Your task to perform on an android device: Go to battery settings Image 0: 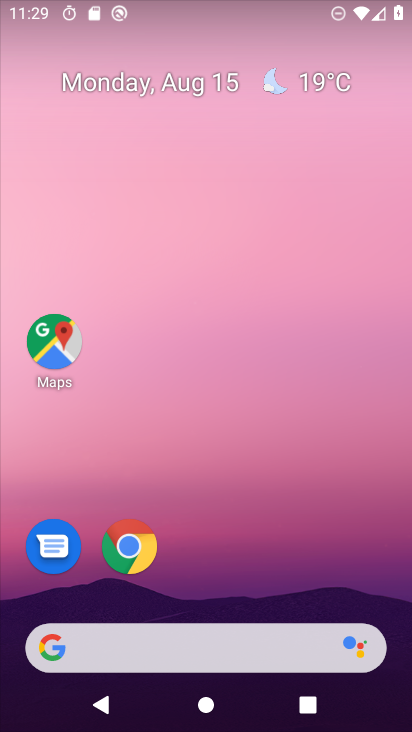
Step 0: drag from (217, 616) to (226, 47)
Your task to perform on an android device: Go to battery settings Image 1: 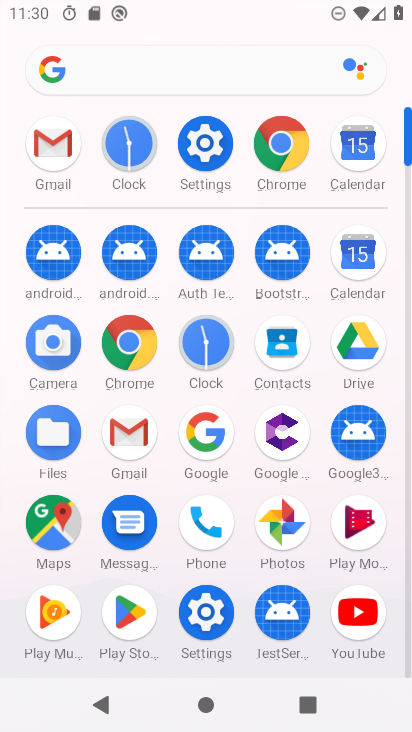
Step 1: click (214, 137)
Your task to perform on an android device: Go to battery settings Image 2: 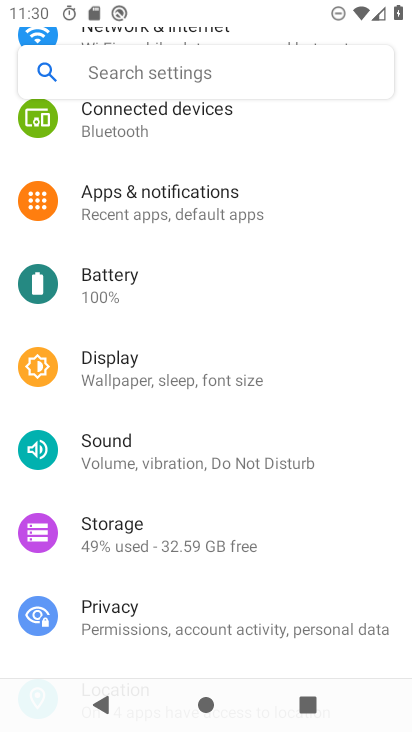
Step 2: drag from (176, 141) to (206, 585)
Your task to perform on an android device: Go to battery settings Image 3: 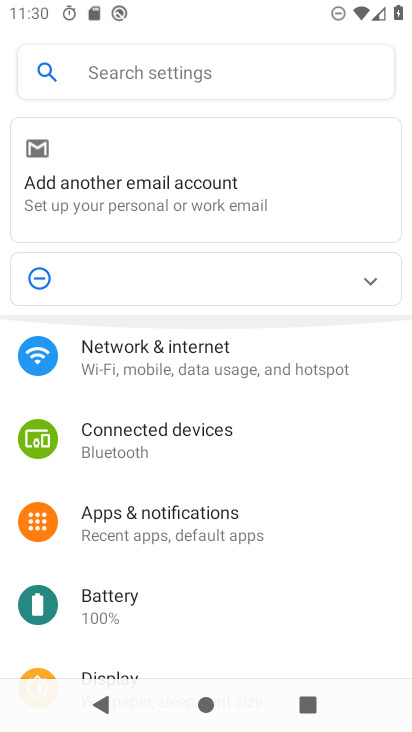
Step 3: click (204, 590)
Your task to perform on an android device: Go to battery settings Image 4: 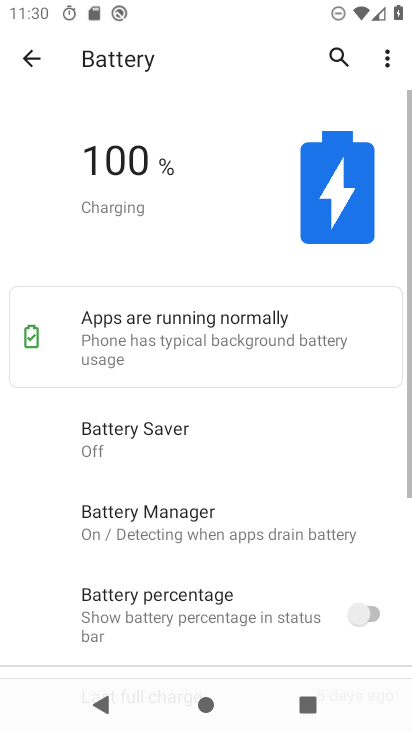
Step 4: task complete